Your task to perform on an android device: choose inbox layout in the gmail app Image 0: 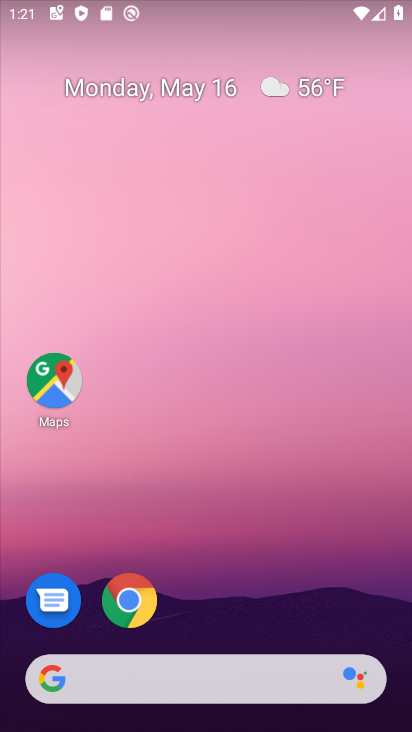
Step 0: drag from (319, 615) to (302, 46)
Your task to perform on an android device: choose inbox layout in the gmail app Image 1: 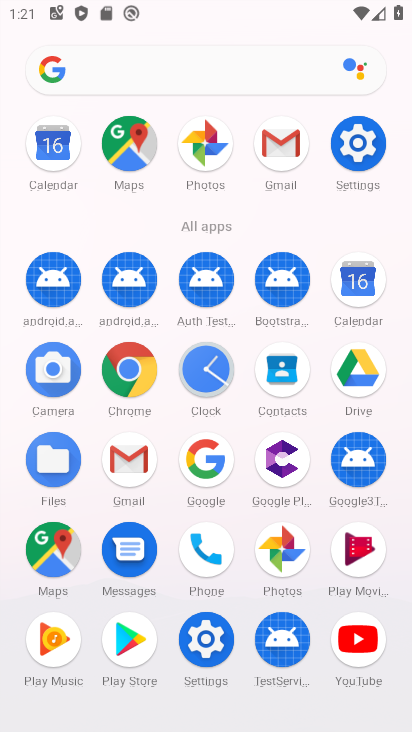
Step 1: click (290, 127)
Your task to perform on an android device: choose inbox layout in the gmail app Image 2: 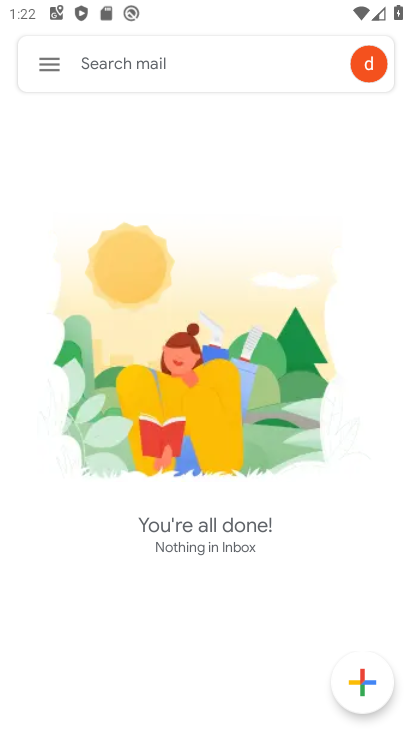
Step 2: click (43, 59)
Your task to perform on an android device: choose inbox layout in the gmail app Image 3: 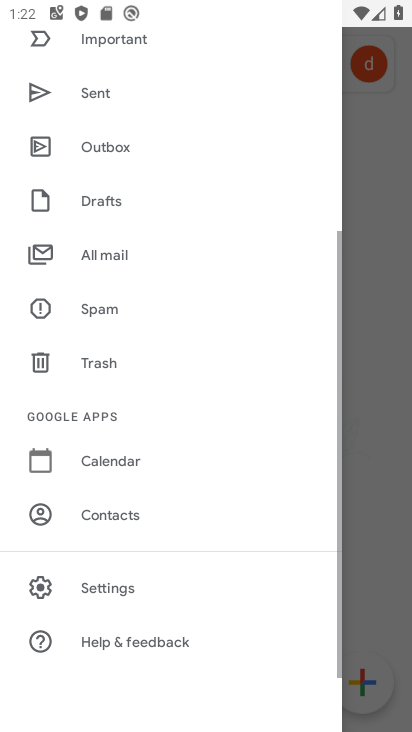
Step 3: click (103, 592)
Your task to perform on an android device: choose inbox layout in the gmail app Image 4: 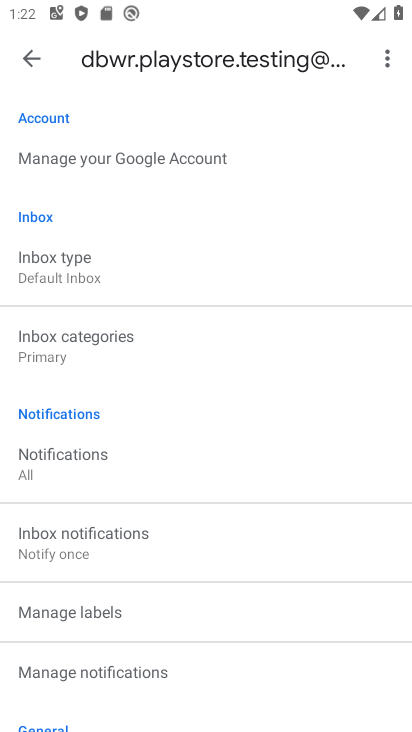
Step 4: click (113, 262)
Your task to perform on an android device: choose inbox layout in the gmail app Image 5: 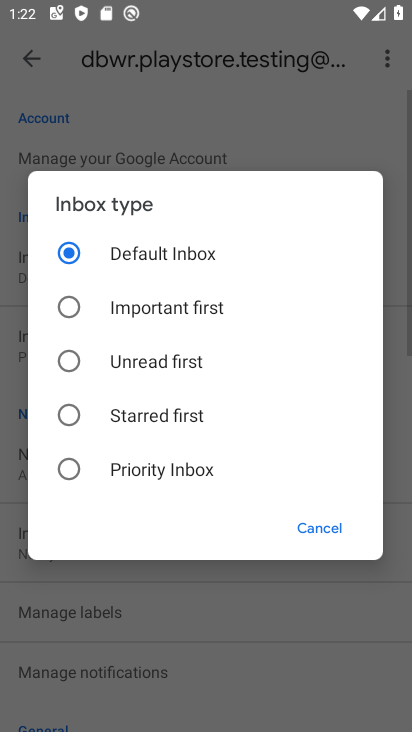
Step 5: click (110, 302)
Your task to perform on an android device: choose inbox layout in the gmail app Image 6: 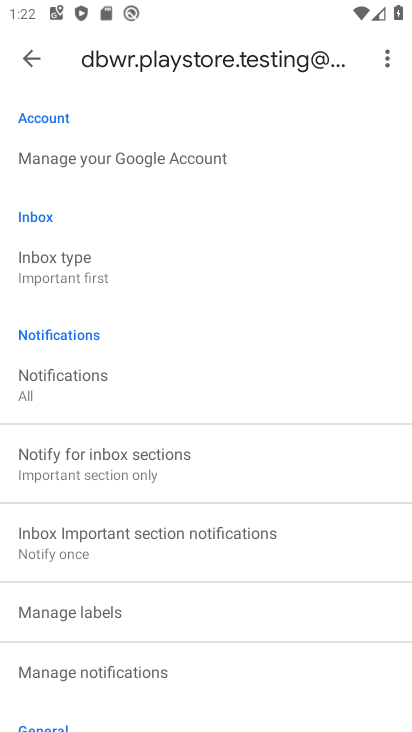
Step 6: task complete